Your task to perform on an android device: Open Google Maps Image 0: 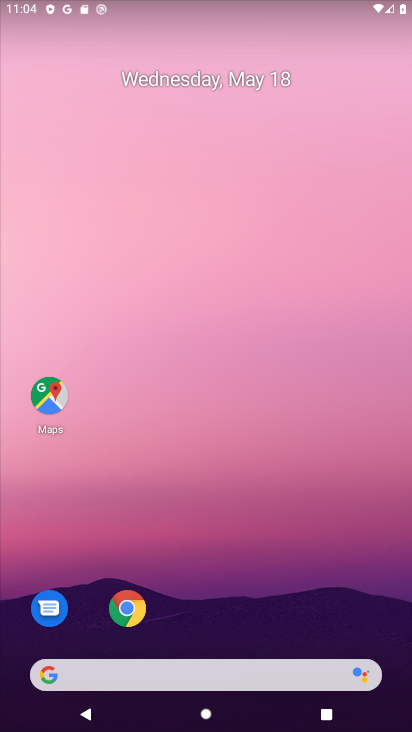
Step 0: click (43, 410)
Your task to perform on an android device: Open Google Maps Image 1: 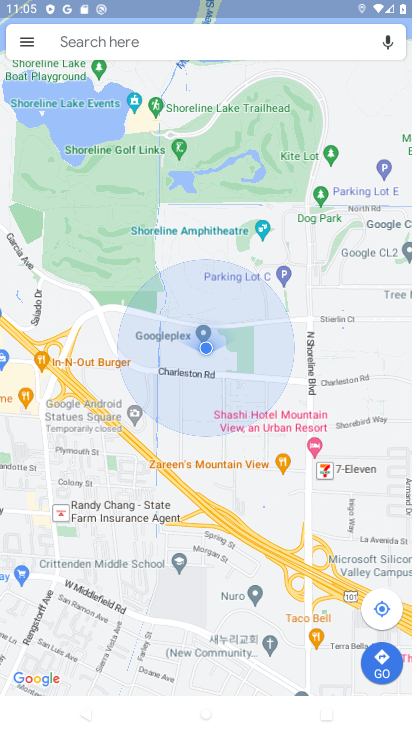
Step 1: task complete